Your task to perform on an android device: Do I have any events today? Image 0: 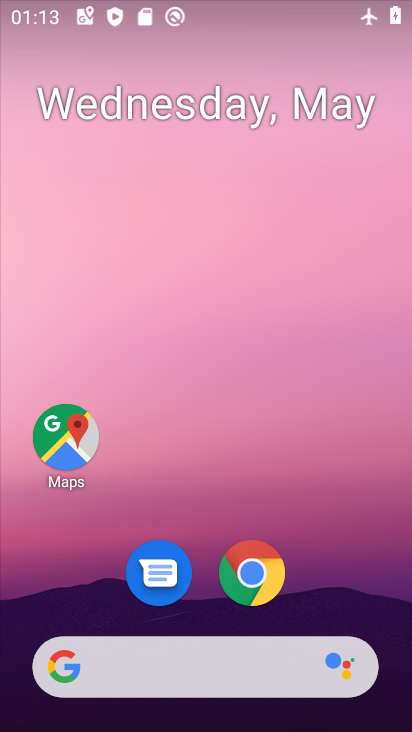
Step 0: drag from (332, 567) to (289, 216)
Your task to perform on an android device: Do I have any events today? Image 1: 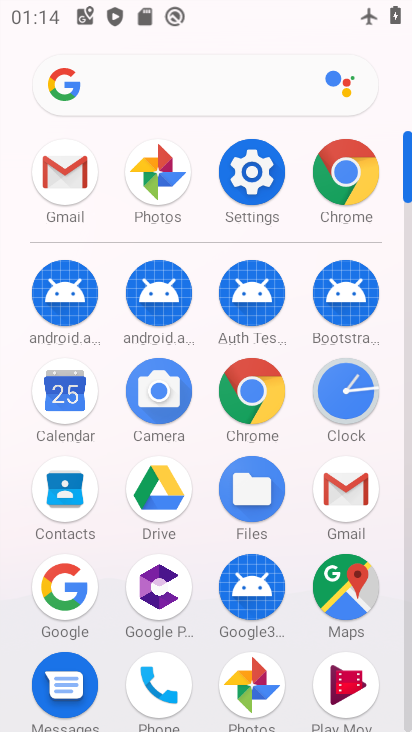
Step 1: click (65, 386)
Your task to perform on an android device: Do I have any events today? Image 2: 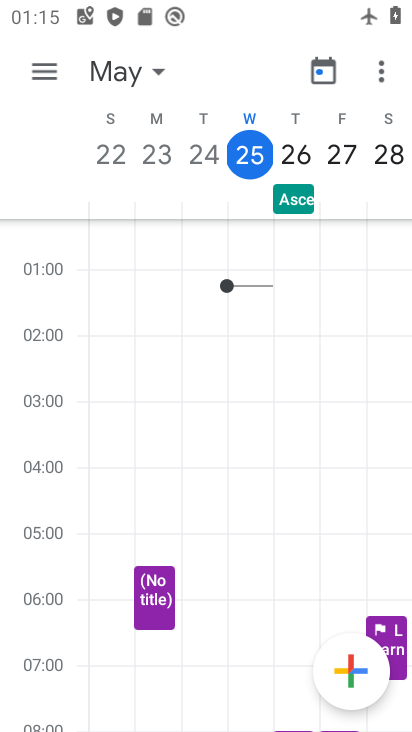
Step 2: task complete